Your task to perform on an android device: What's the weather going to be tomorrow? Image 0: 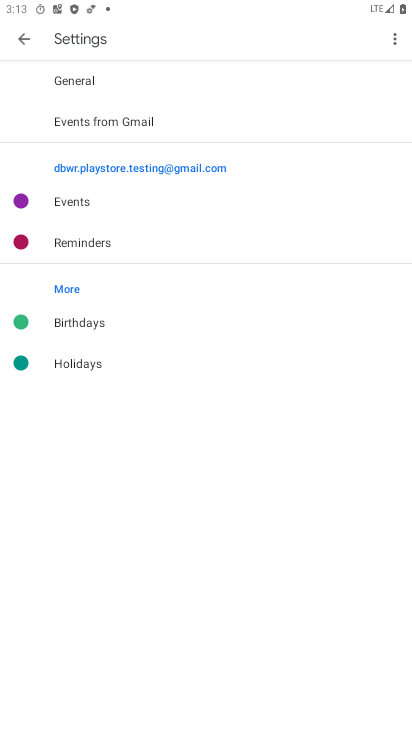
Step 0: press home button
Your task to perform on an android device: What's the weather going to be tomorrow? Image 1: 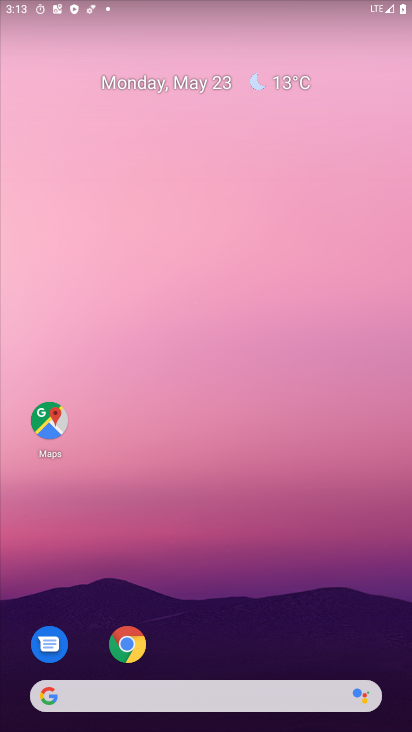
Step 1: drag from (196, 674) to (378, 1)
Your task to perform on an android device: What's the weather going to be tomorrow? Image 2: 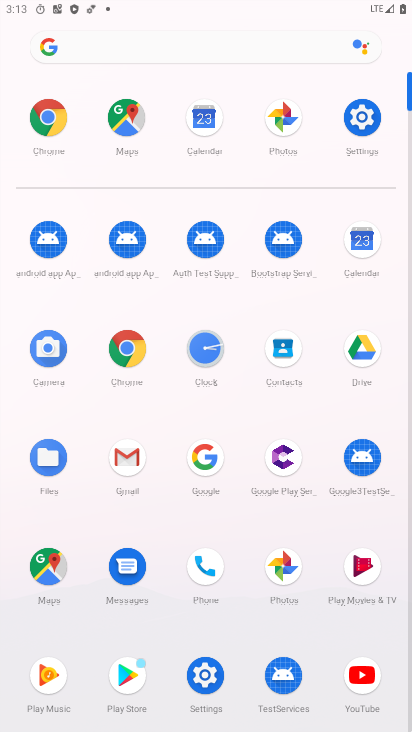
Step 2: click (195, 457)
Your task to perform on an android device: What's the weather going to be tomorrow? Image 3: 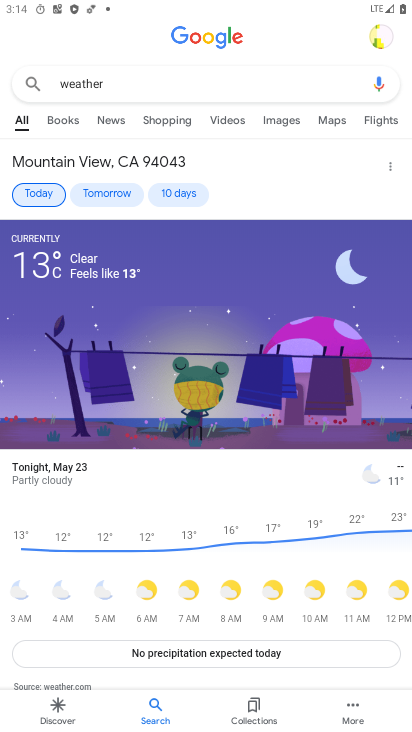
Step 3: click (103, 187)
Your task to perform on an android device: What's the weather going to be tomorrow? Image 4: 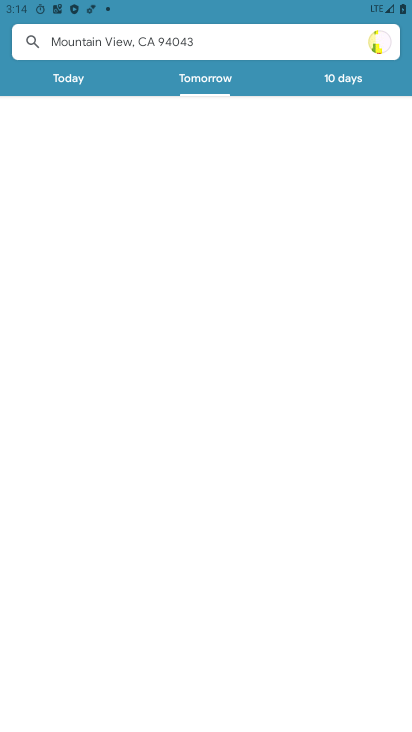
Step 4: task complete